Your task to perform on an android device: What's on my calendar today? Image 0: 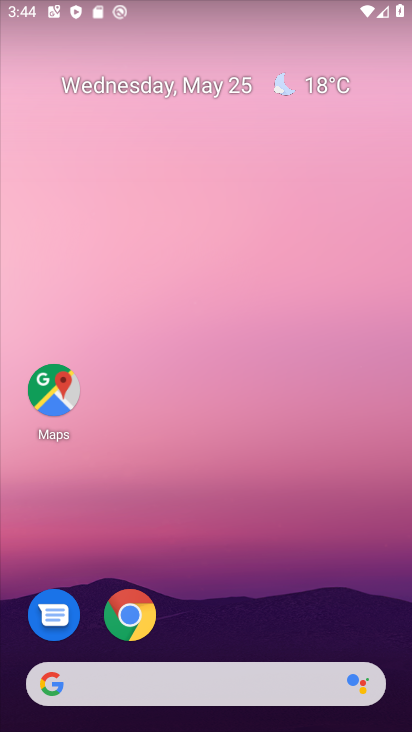
Step 0: drag from (308, 642) to (260, 9)
Your task to perform on an android device: What's on my calendar today? Image 1: 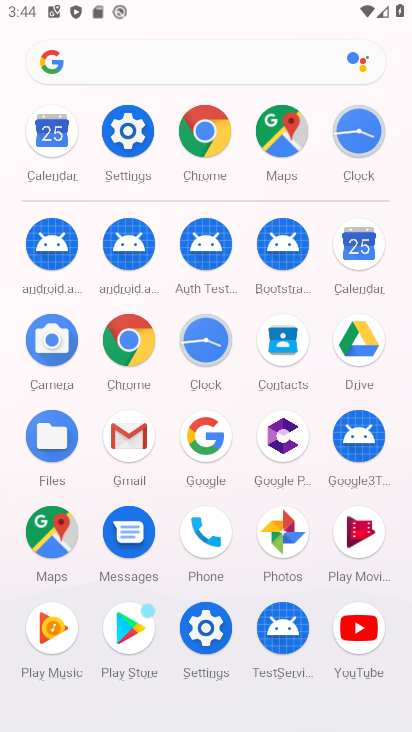
Step 1: click (360, 239)
Your task to perform on an android device: What's on my calendar today? Image 2: 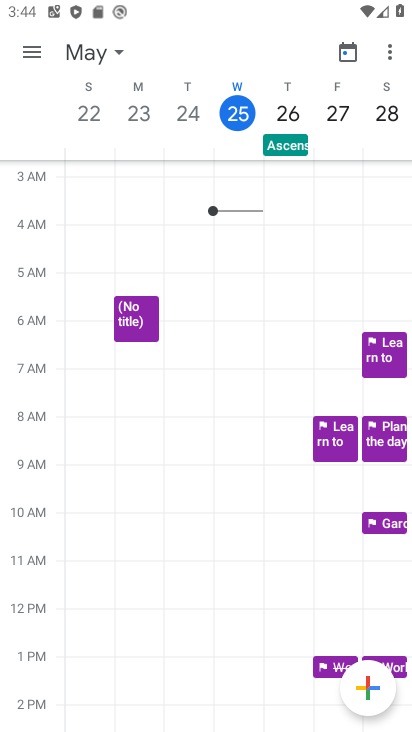
Step 2: click (40, 56)
Your task to perform on an android device: What's on my calendar today? Image 3: 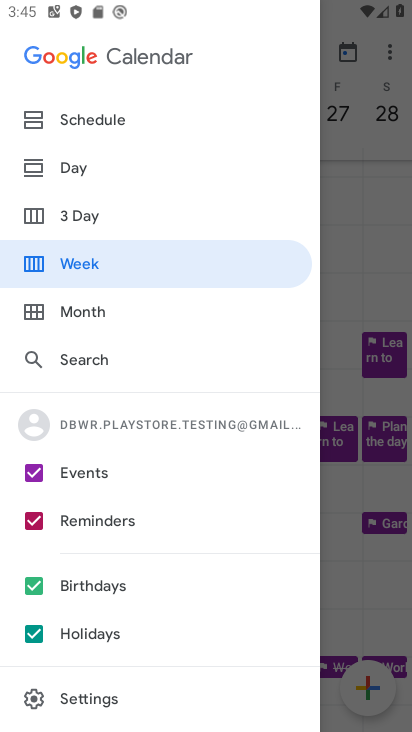
Step 3: click (73, 170)
Your task to perform on an android device: What's on my calendar today? Image 4: 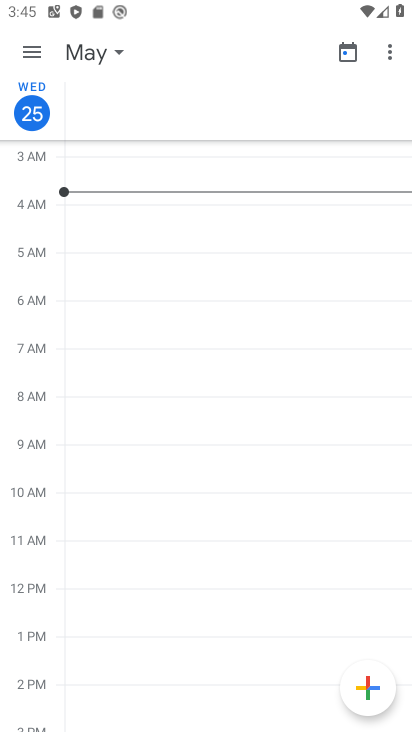
Step 4: task complete